Your task to perform on an android device: Is it going to rain this weekend? Image 0: 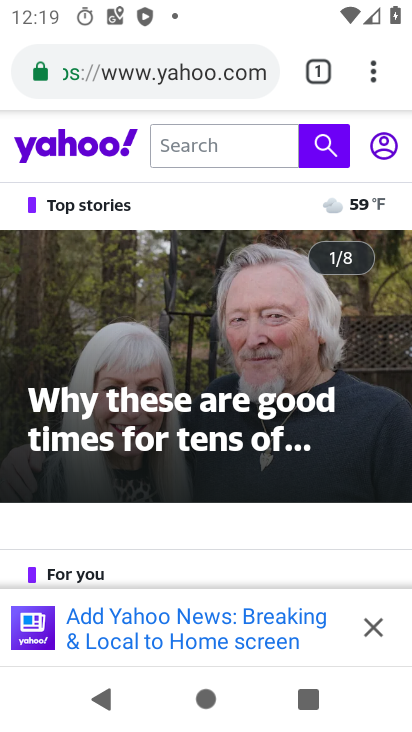
Step 0: press home button
Your task to perform on an android device: Is it going to rain this weekend? Image 1: 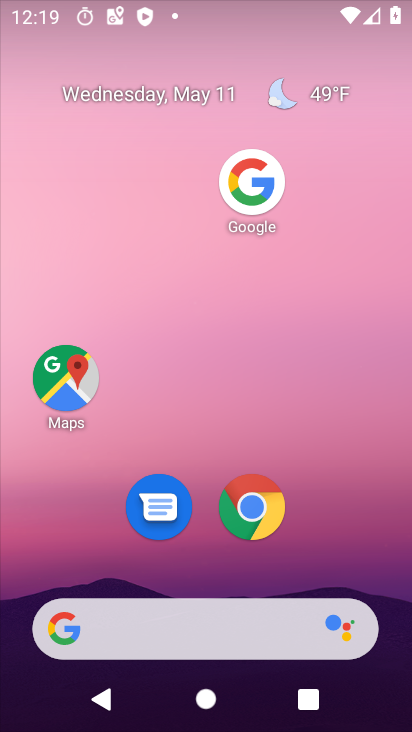
Step 1: drag from (200, 552) to (173, 129)
Your task to perform on an android device: Is it going to rain this weekend? Image 2: 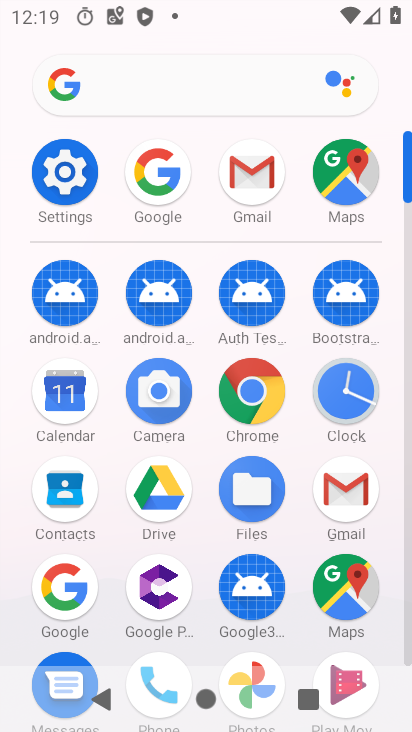
Step 2: click (159, 158)
Your task to perform on an android device: Is it going to rain this weekend? Image 3: 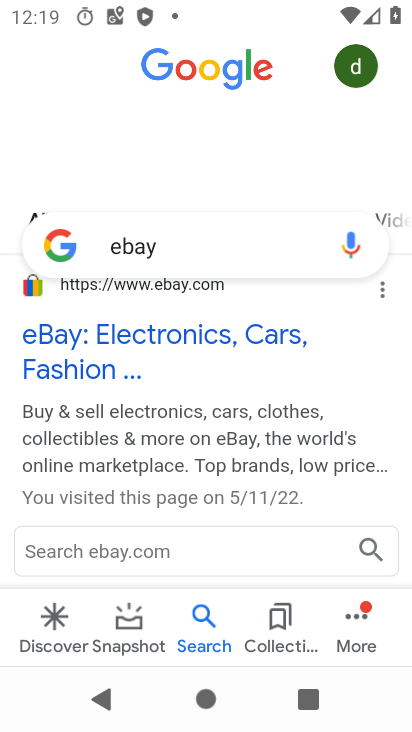
Step 3: click (224, 235)
Your task to perform on an android device: Is it going to rain this weekend? Image 4: 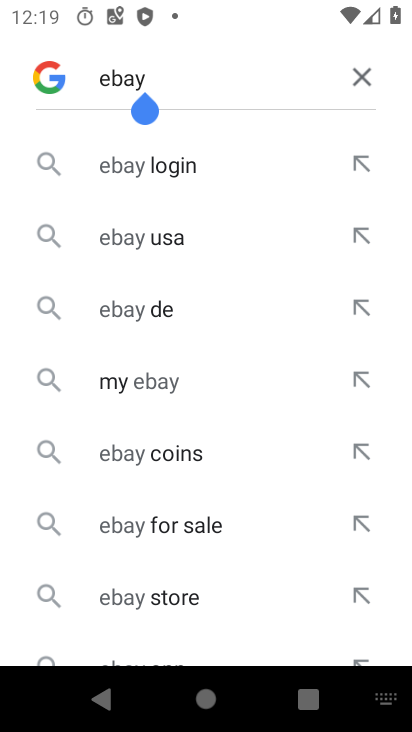
Step 4: click (350, 87)
Your task to perform on an android device: Is it going to rain this weekend? Image 5: 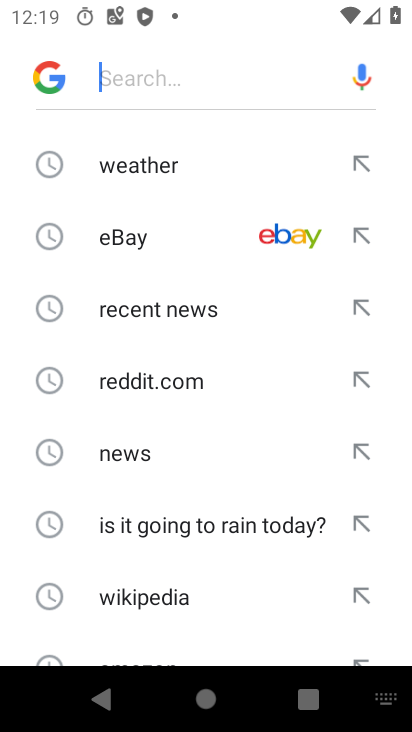
Step 5: type "is it going to rain this weekend"
Your task to perform on an android device: Is it going to rain this weekend? Image 6: 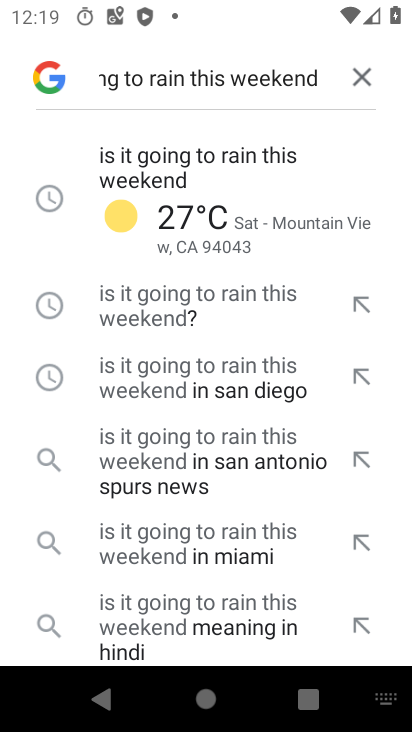
Step 6: click (176, 154)
Your task to perform on an android device: Is it going to rain this weekend? Image 7: 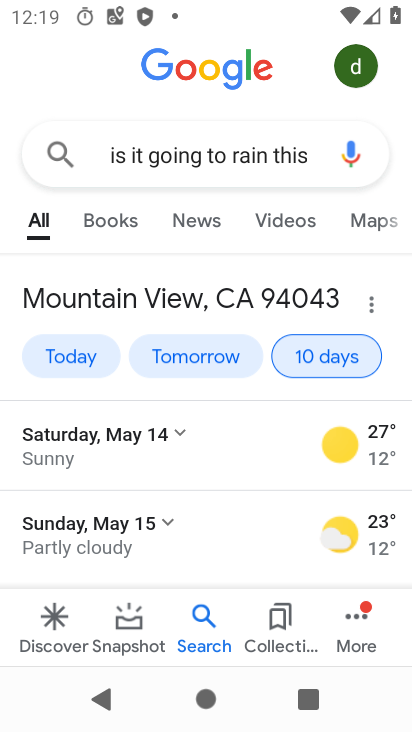
Step 7: task complete